Your task to perform on an android device: Clear the cart on bestbuy.com. Add "usb-a to usb-b" to the cart on bestbuy.com Image 0: 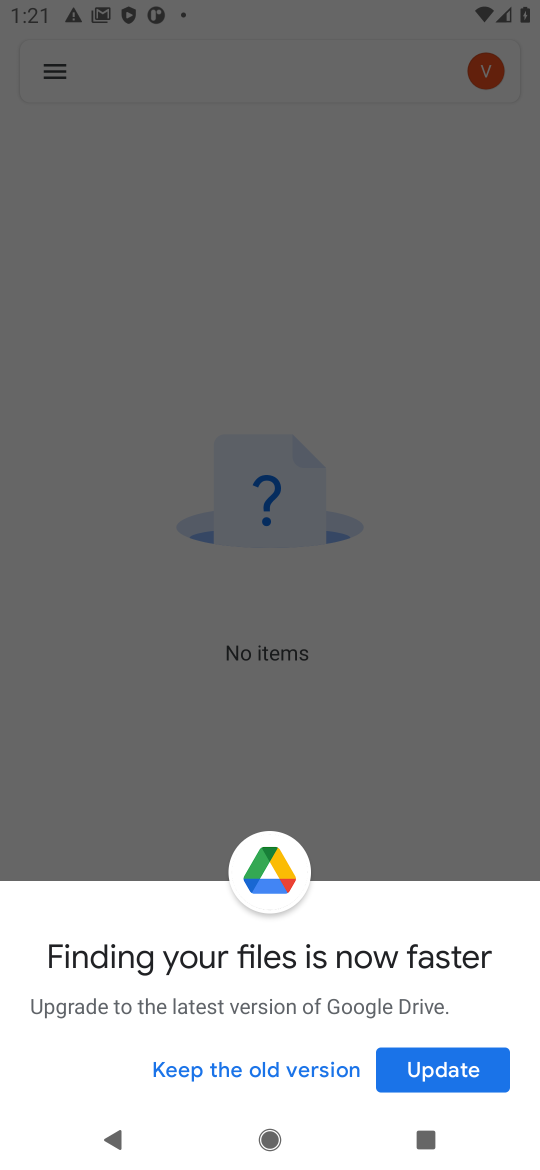
Step 0: click (377, 931)
Your task to perform on an android device: Clear the cart on bestbuy.com. Add "usb-a to usb-b" to the cart on bestbuy.com Image 1: 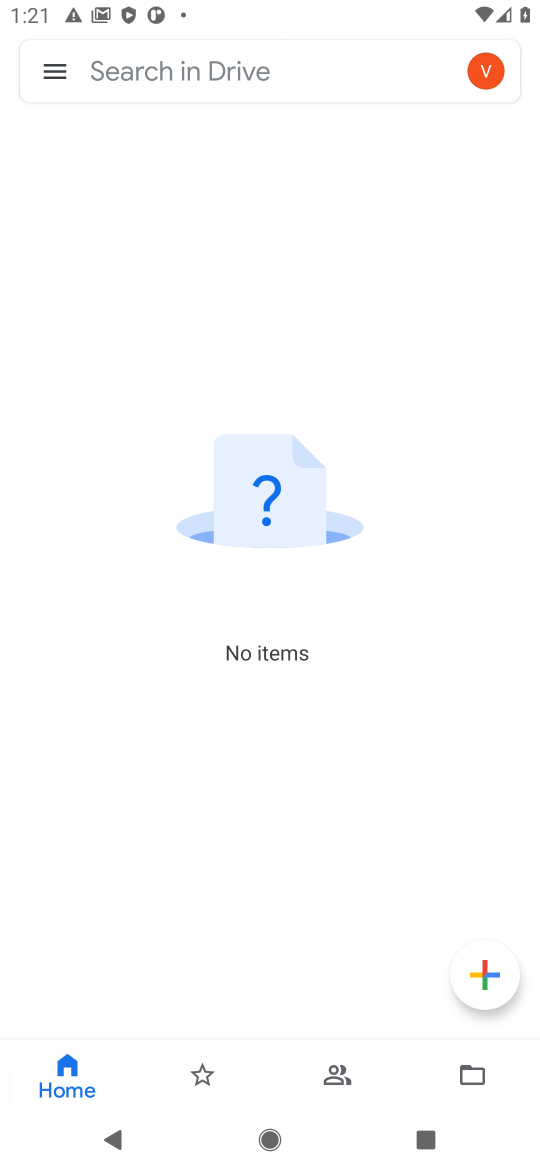
Step 1: press home button
Your task to perform on an android device: Clear the cart on bestbuy.com. Add "usb-a to usb-b" to the cart on bestbuy.com Image 2: 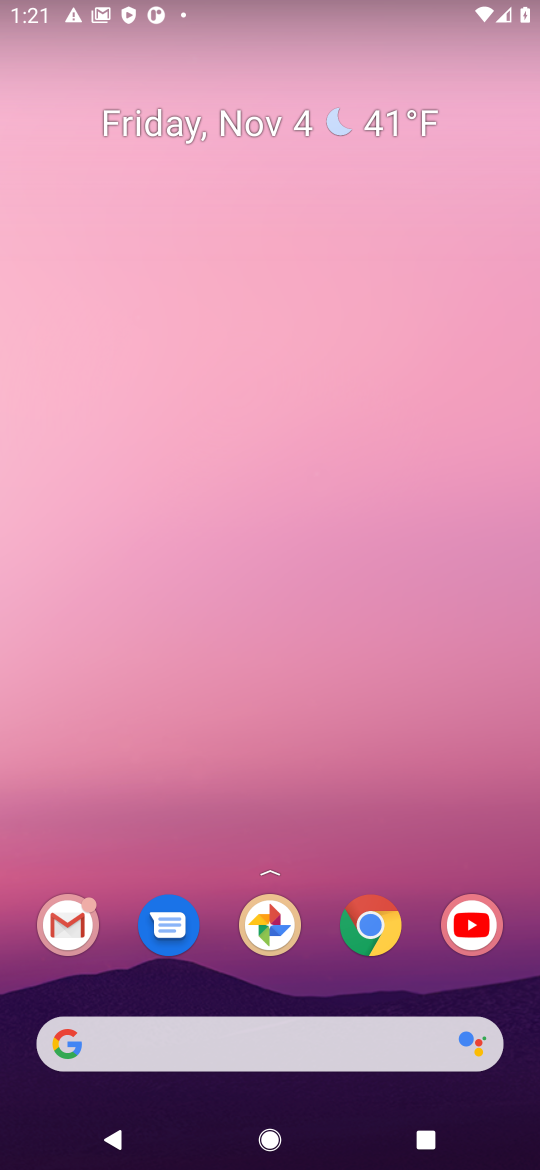
Step 2: click (366, 915)
Your task to perform on an android device: Clear the cart on bestbuy.com. Add "usb-a to usb-b" to the cart on bestbuy.com Image 3: 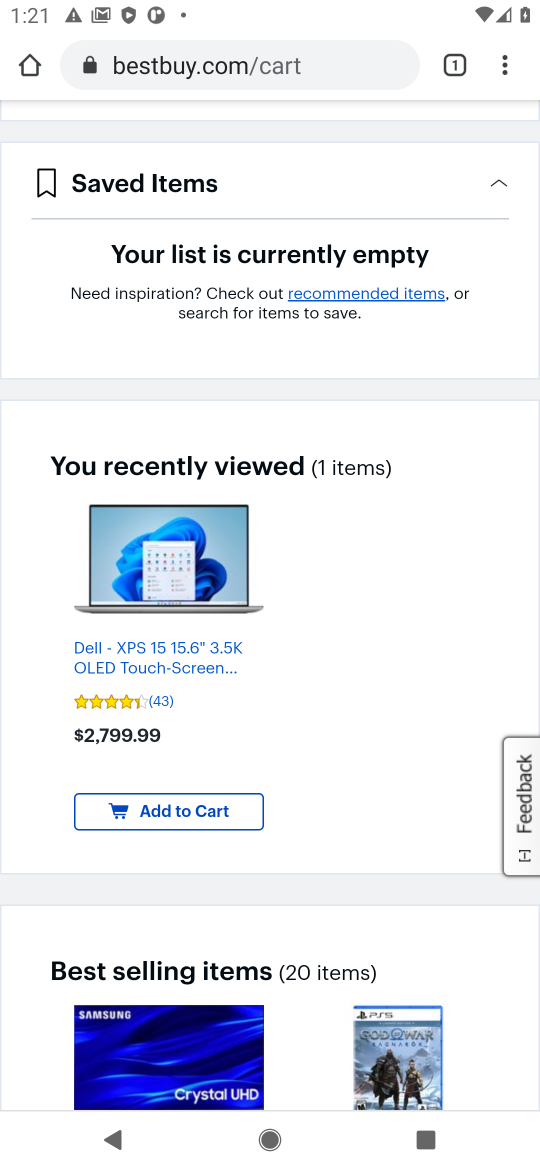
Step 3: drag from (352, 184) to (371, 848)
Your task to perform on an android device: Clear the cart on bestbuy.com. Add "usb-a to usb-b" to the cart on bestbuy.com Image 4: 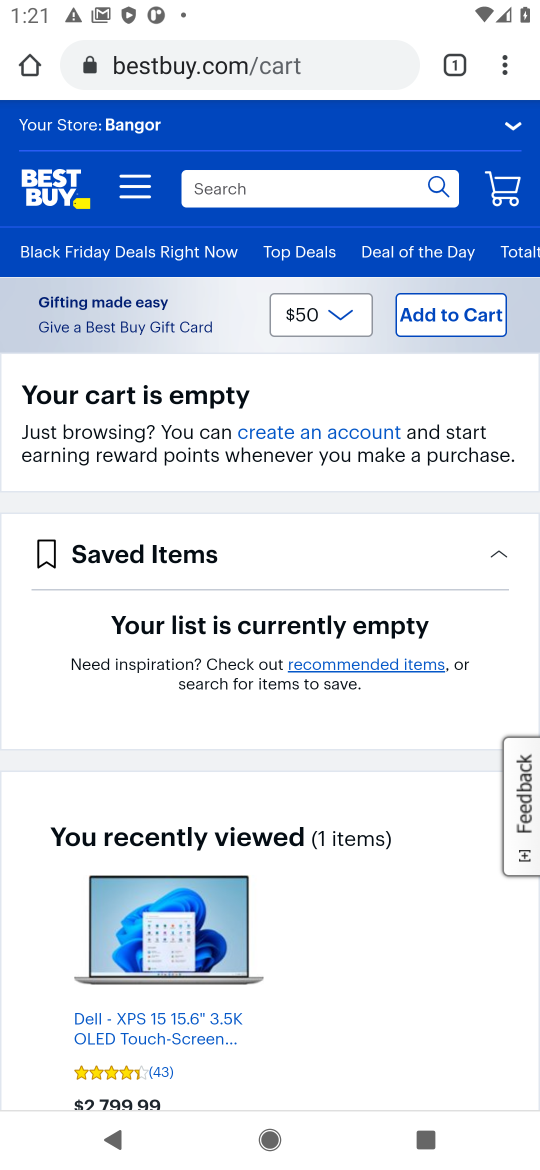
Step 4: click (351, 174)
Your task to perform on an android device: Clear the cart on bestbuy.com. Add "usb-a to usb-b" to the cart on bestbuy.com Image 5: 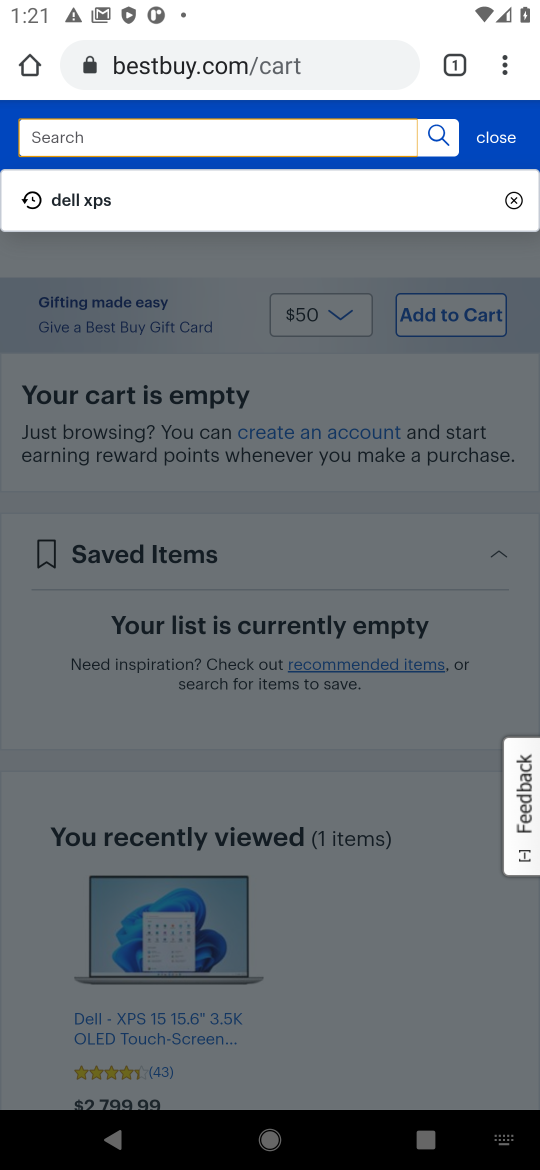
Step 5: type "usb-a to usb-b"
Your task to perform on an android device: Clear the cart on bestbuy.com. Add "usb-a to usb-b" to the cart on bestbuy.com Image 6: 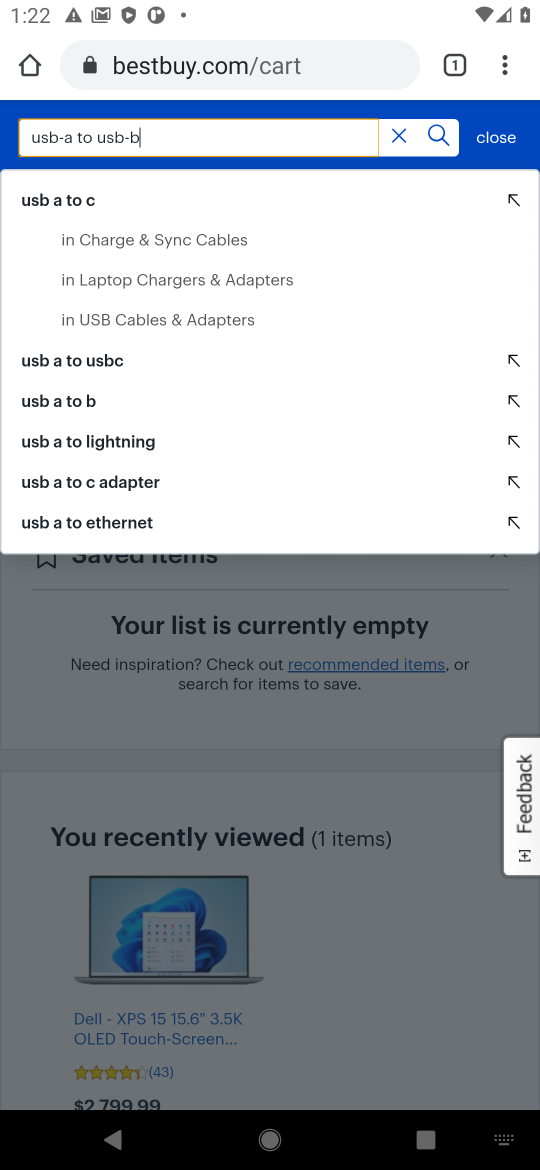
Step 6: press enter
Your task to perform on an android device: Clear the cart on bestbuy.com. Add "usb-a to usb-b" to the cart on bestbuy.com Image 7: 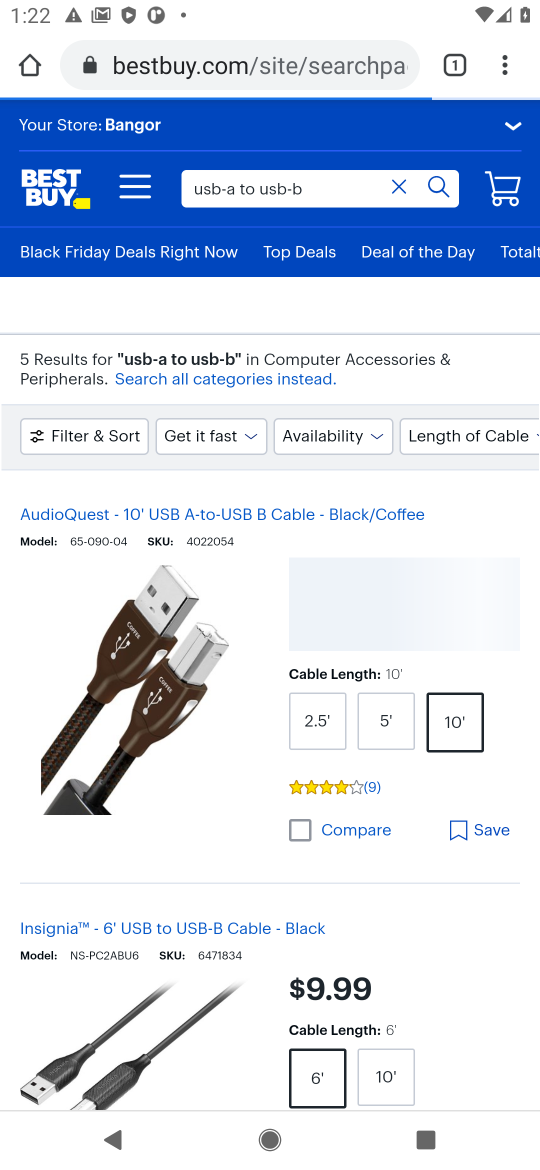
Step 7: click (151, 665)
Your task to perform on an android device: Clear the cart on bestbuy.com. Add "usb-a to usb-b" to the cart on bestbuy.com Image 8: 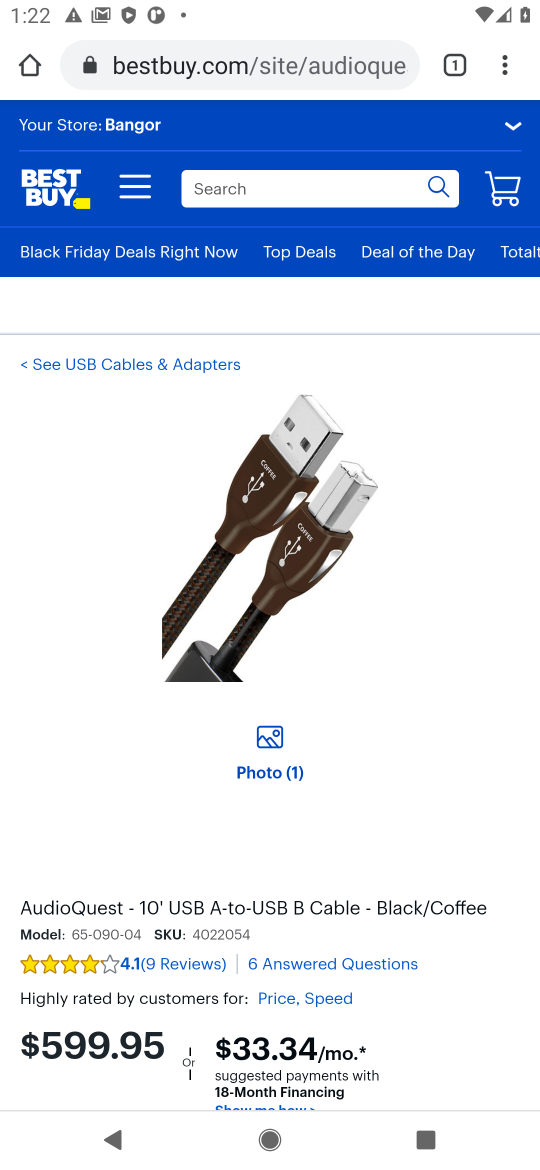
Step 8: drag from (382, 804) to (306, 353)
Your task to perform on an android device: Clear the cart on bestbuy.com. Add "usb-a to usb-b" to the cart on bestbuy.com Image 9: 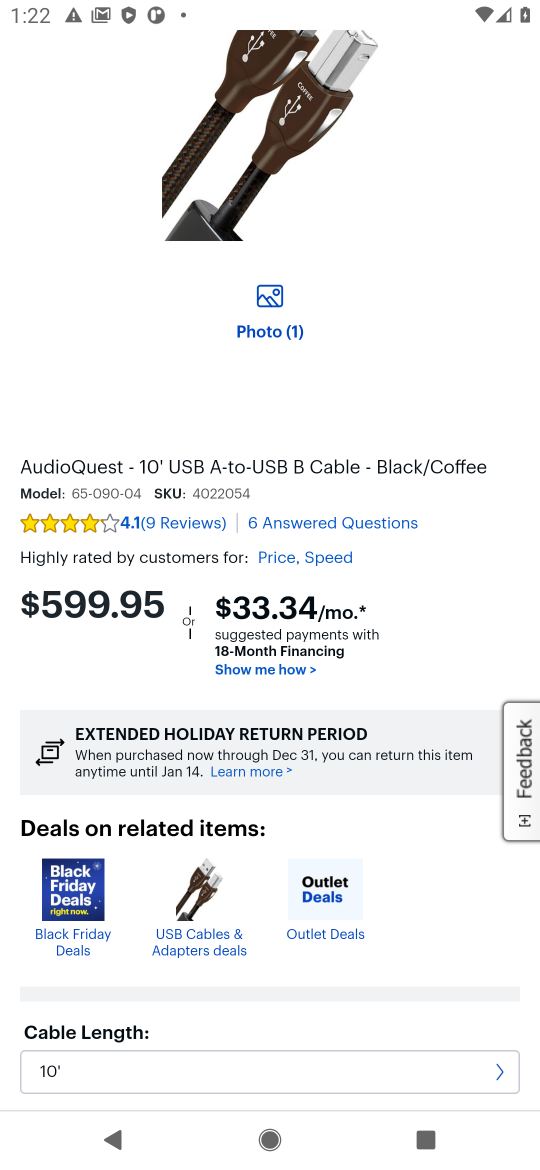
Step 9: drag from (384, 875) to (353, 344)
Your task to perform on an android device: Clear the cart on bestbuy.com. Add "usb-a to usb-b" to the cart on bestbuy.com Image 10: 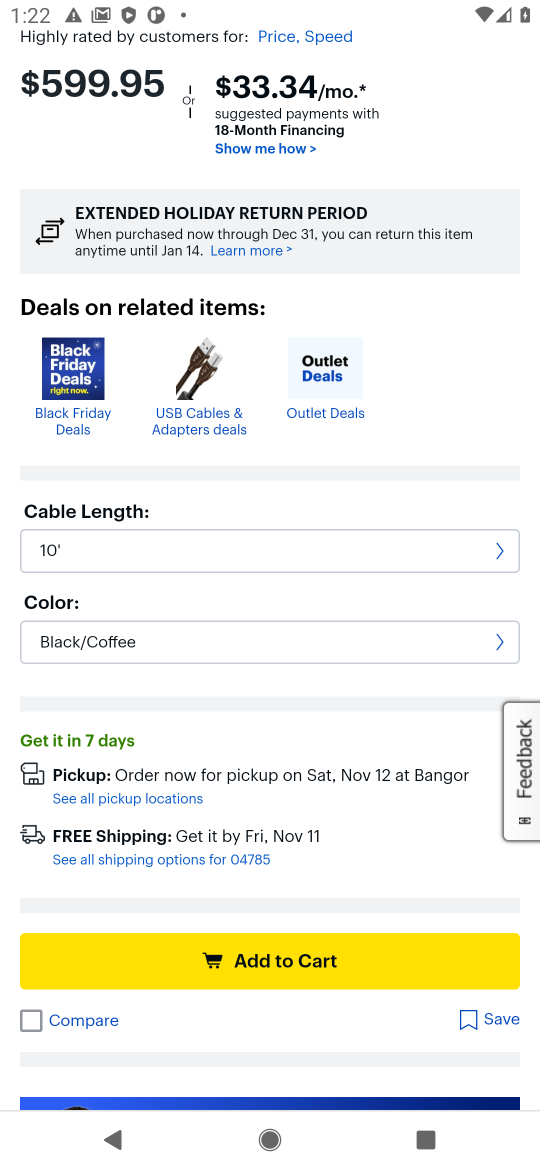
Step 10: click (328, 960)
Your task to perform on an android device: Clear the cart on bestbuy.com. Add "usb-a to usb-b" to the cart on bestbuy.com Image 11: 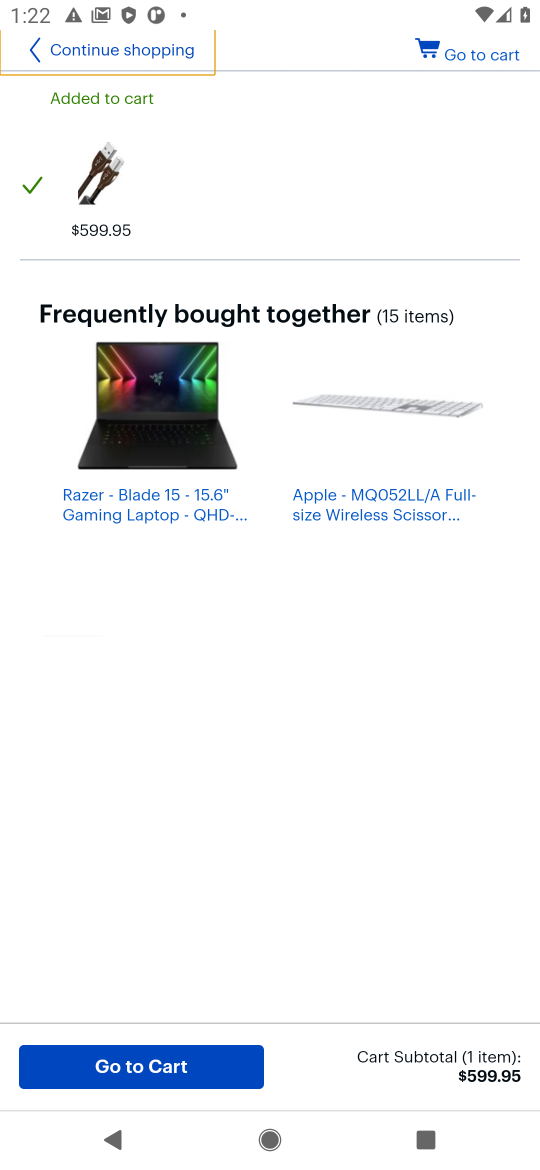
Step 11: task complete